Your task to perform on an android device: toggle sleep mode Image 0: 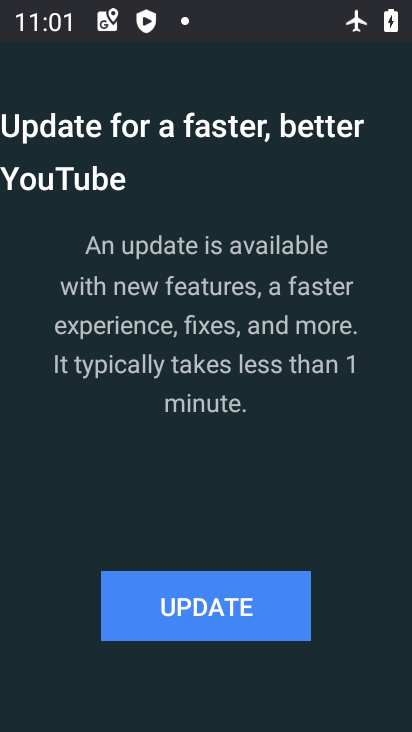
Step 0: click (376, 555)
Your task to perform on an android device: toggle sleep mode Image 1: 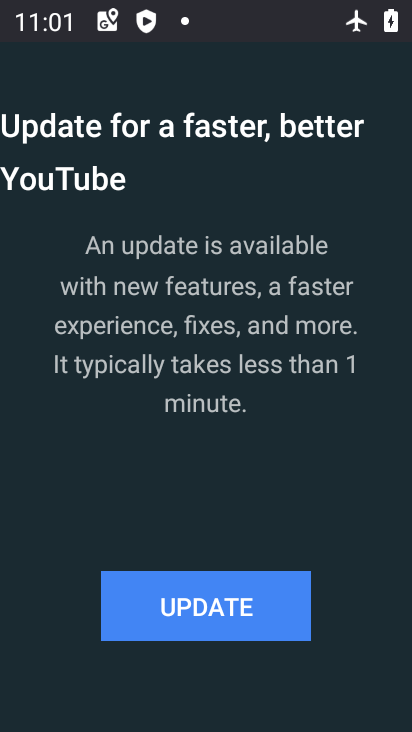
Step 1: press home button
Your task to perform on an android device: toggle sleep mode Image 2: 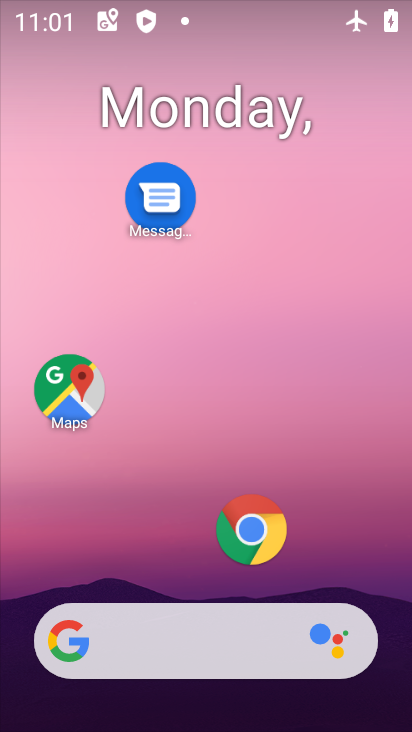
Step 2: drag from (185, 549) to (198, 136)
Your task to perform on an android device: toggle sleep mode Image 3: 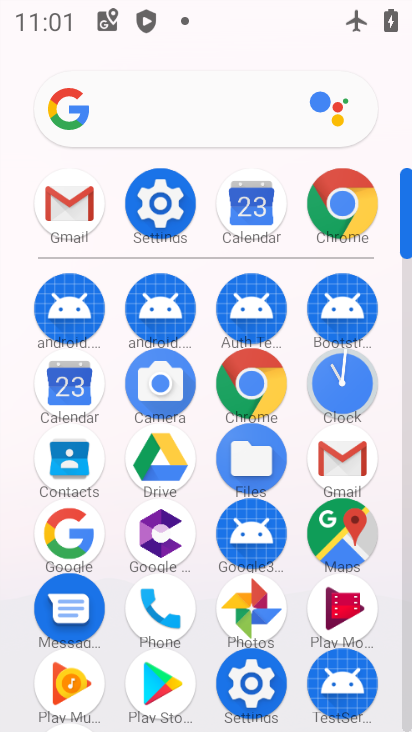
Step 3: click (172, 208)
Your task to perform on an android device: toggle sleep mode Image 4: 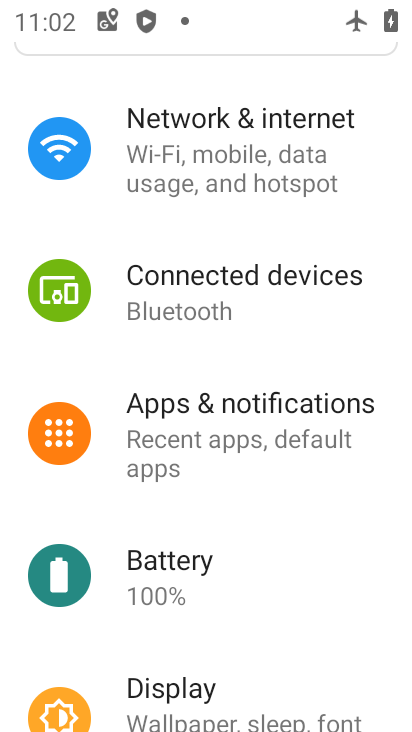
Step 4: task complete